Your task to perform on an android device: Search for pizza restaurants on Maps Image 0: 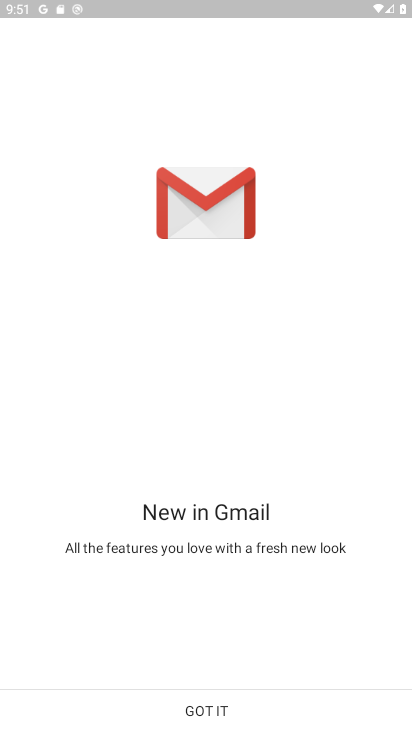
Step 0: press home button
Your task to perform on an android device: Search for pizza restaurants on Maps Image 1: 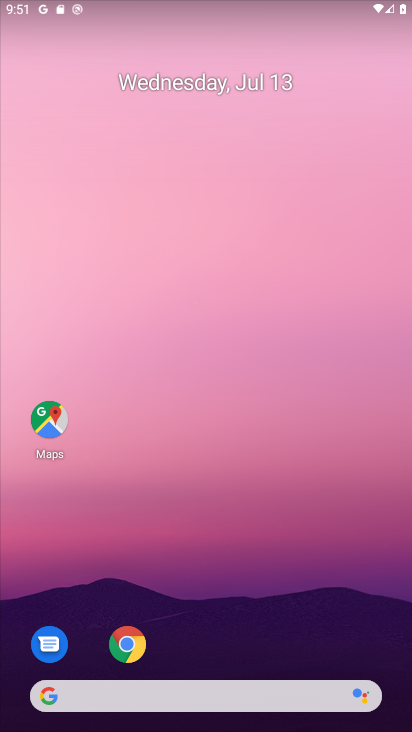
Step 1: drag from (236, 665) to (306, 98)
Your task to perform on an android device: Search for pizza restaurants on Maps Image 2: 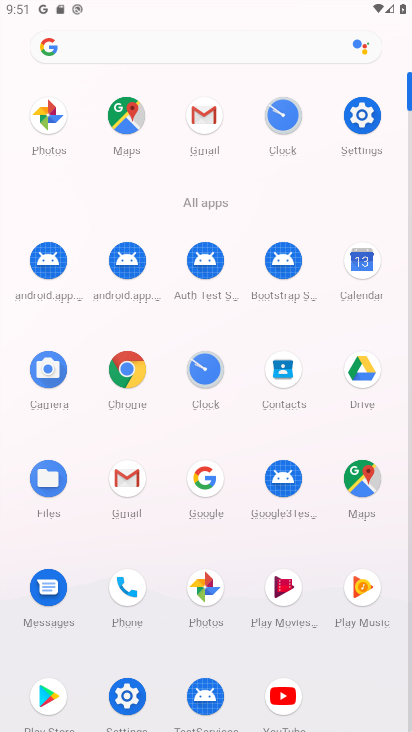
Step 2: click (373, 473)
Your task to perform on an android device: Search for pizza restaurants on Maps Image 3: 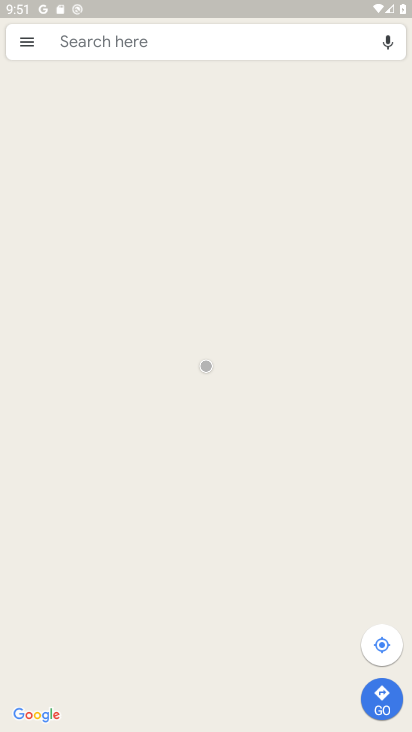
Step 3: click (132, 46)
Your task to perform on an android device: Search for pizza restaurants on Maps Image 4: 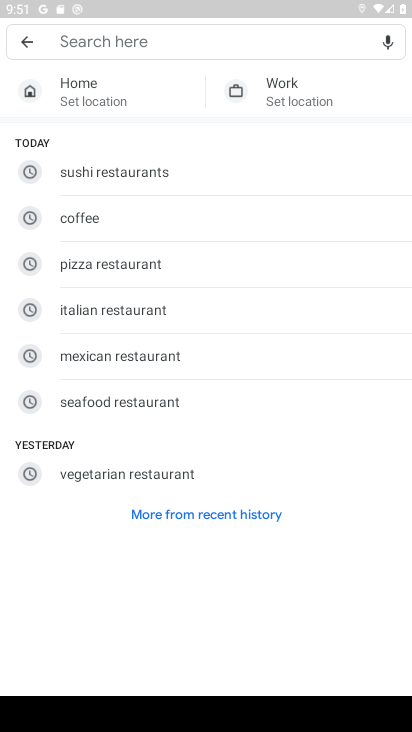
Step 4: type "Pizza restaurants"
Your task to perform on an android device: Search for pizza restaurants on Maps Image 5: 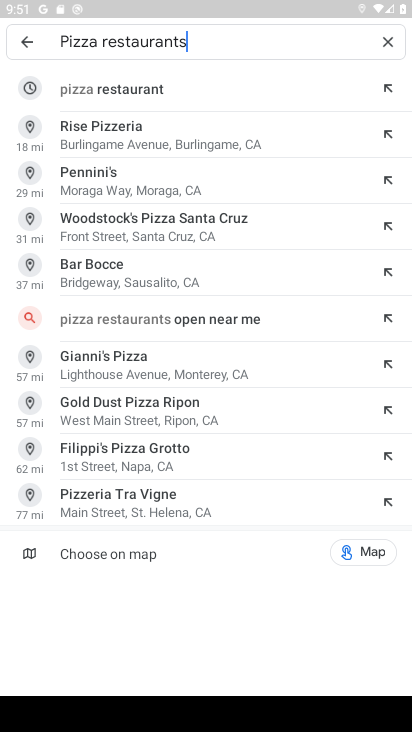
Step 5: click (177, 91)
Your task to perform on an android device: Search for pizza restaurants on Maps Image 6: 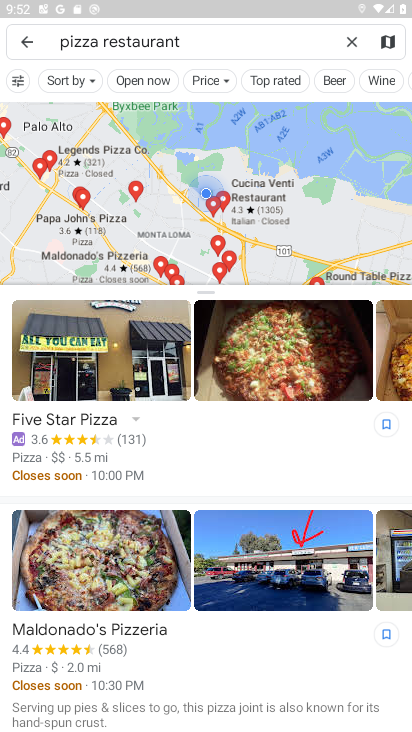
Step 6: task complete